Your task to perform on an android device: Search for vegetarian restaurants on Maps Image 0: 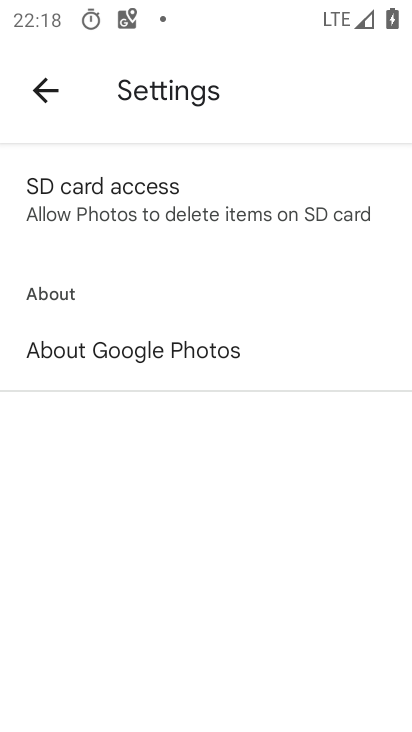
Step 0: press home button
Your task to perform on an android device: Search for vegetarian restaurants on Maps Image 1: 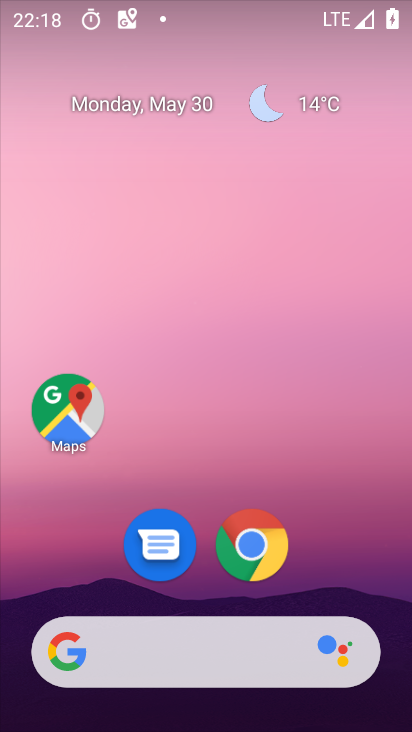
Step 1: drag from (346, 565) to (329, 71)
Your task to perform on an android device: Search for vegetarian restaurants on Maps Image 2: 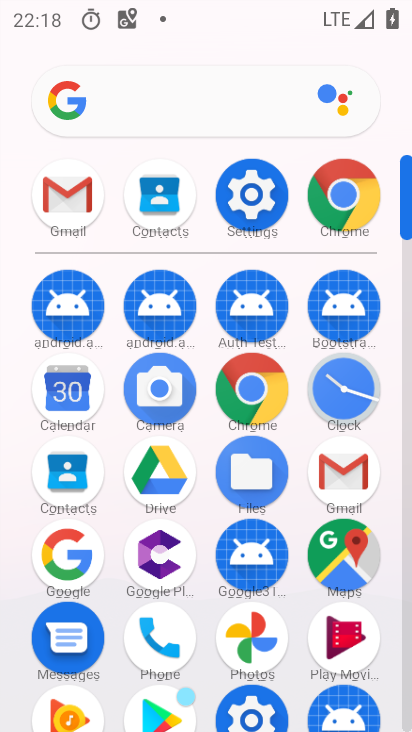
Step 2: click (351, 565)
Your task to perform on an android device: Search for vegetarian restaurants on Maps Image 3: 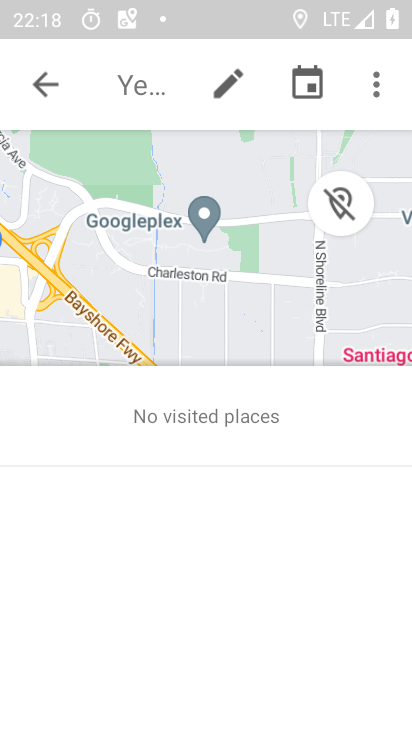
Step 3: click (37, 92)
Your task to perform on an android device: Search for vegetarian restaurants on Maps Image 4: 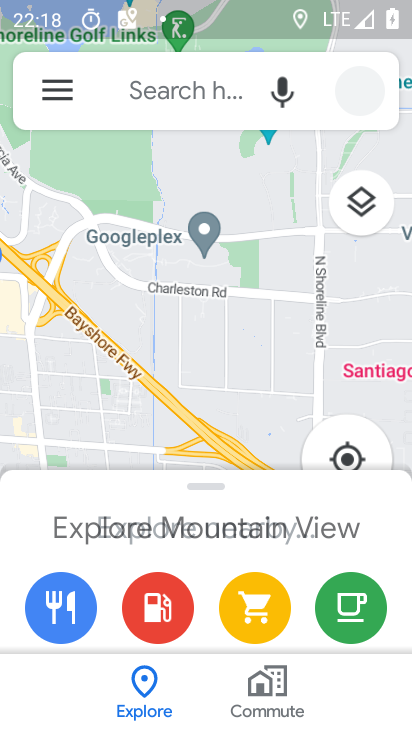
Step 4: click (159, 88)
Your task to perform on an android device: Search for vegetarian restaurants on Maps Image 5: 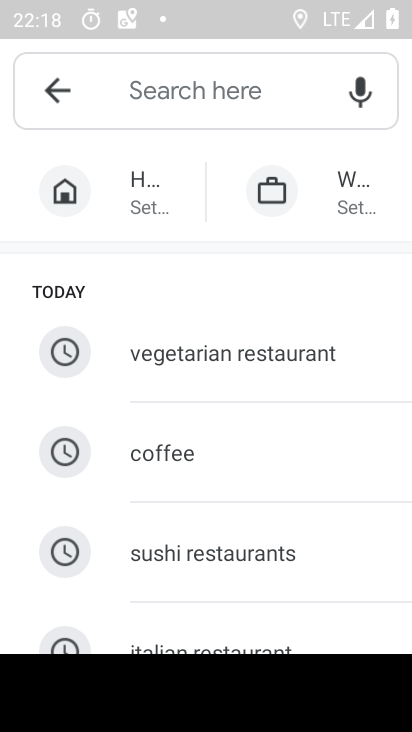
Step 5: click (276, 366)
Your task to perform on an android device: Search for vegetarian restaurants on Maps Image 6: 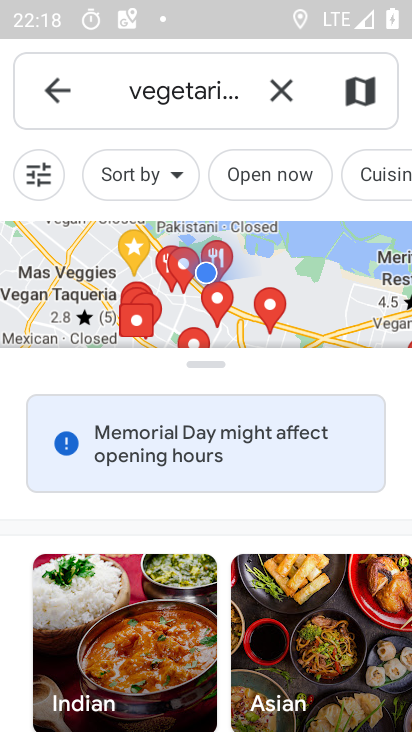
Step 6: task complete